Your task to perform on an android device: open device folders in google photos Image 0: 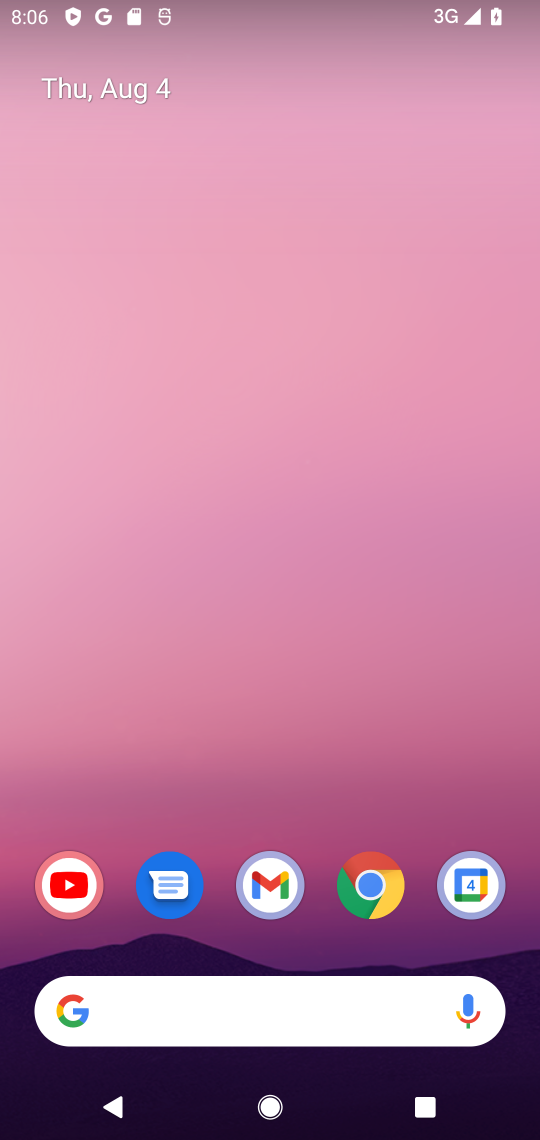
Step 0: press home button
Your task to perform on an android device: open device folders in google photos Image 1: 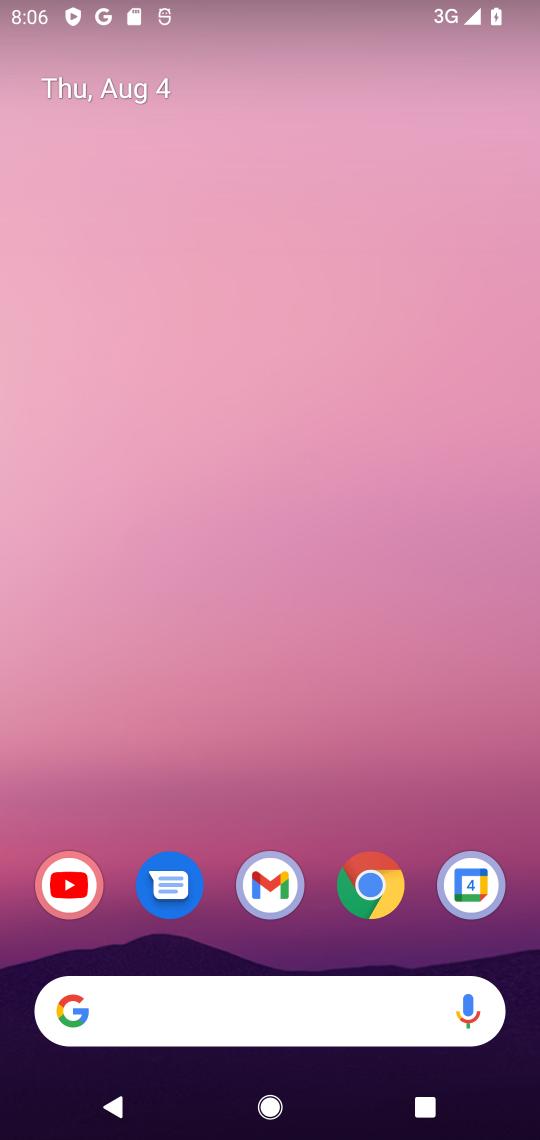
Step 1: drag from (313, 938) to (386, 122)
Your task to perform on an android device: open device folders in google photos Image 2: 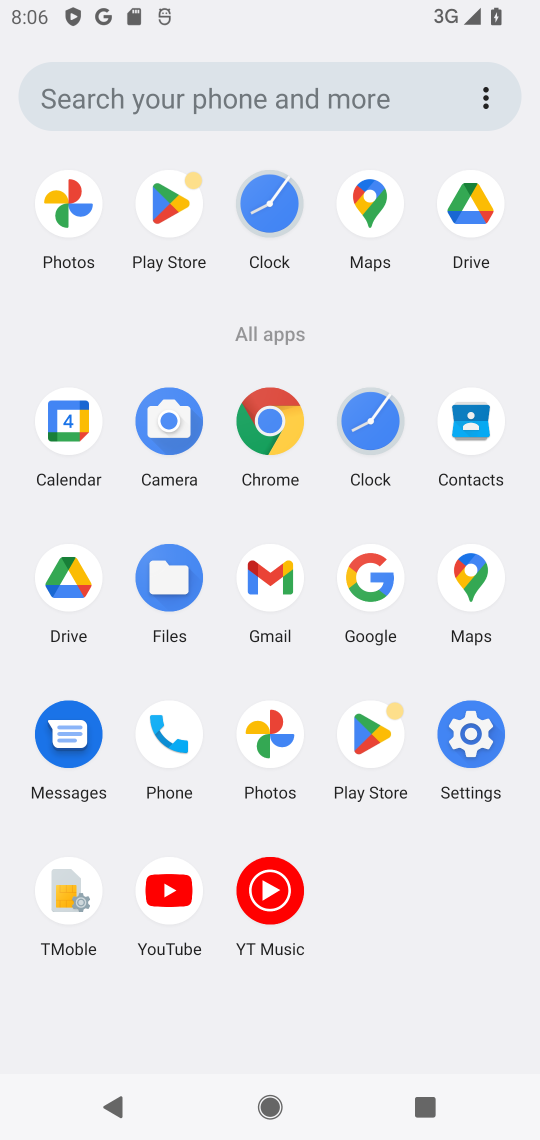
Step 2: click (273, 726)
Your task to perform on an android device: open device folders in google photos Image 3: 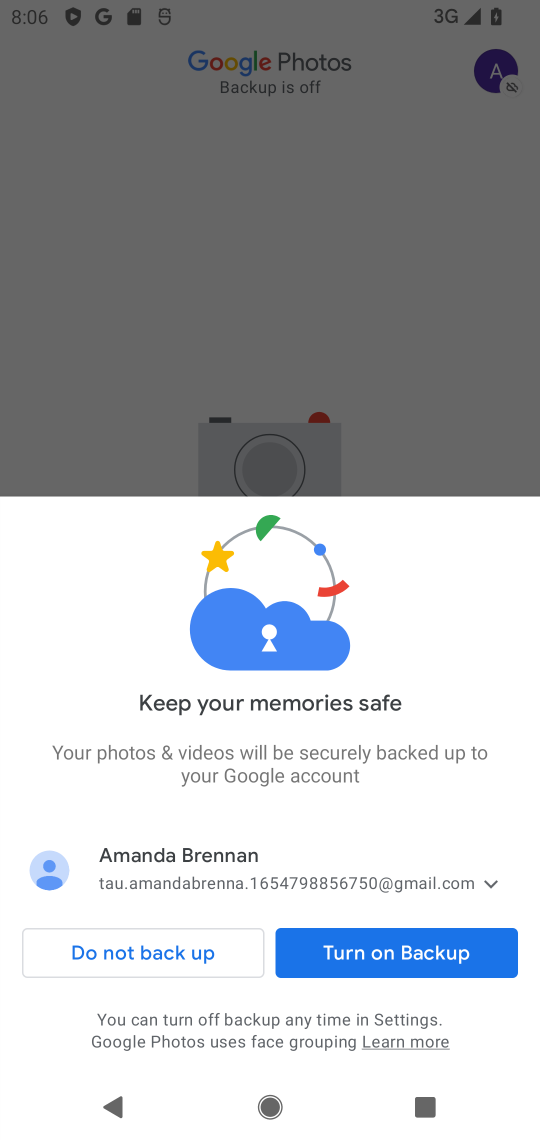
Step 3: click (406, 952)
Your task to perform on an android device: open device folders in google photos Image 4: 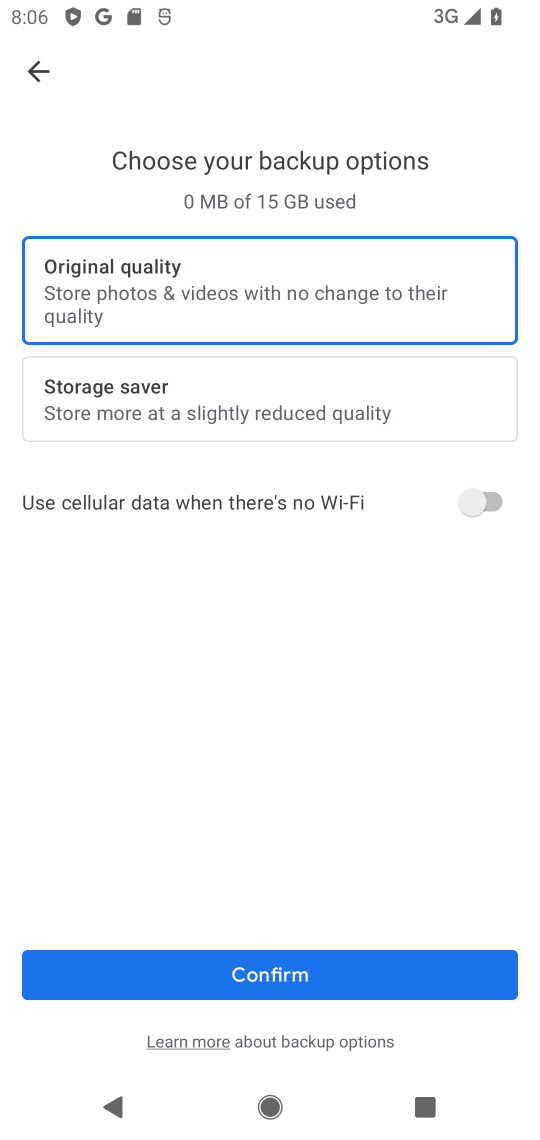
Step 4: click (256, 979)
Your task to perform on an android device: open device folders in google photos Image 5: 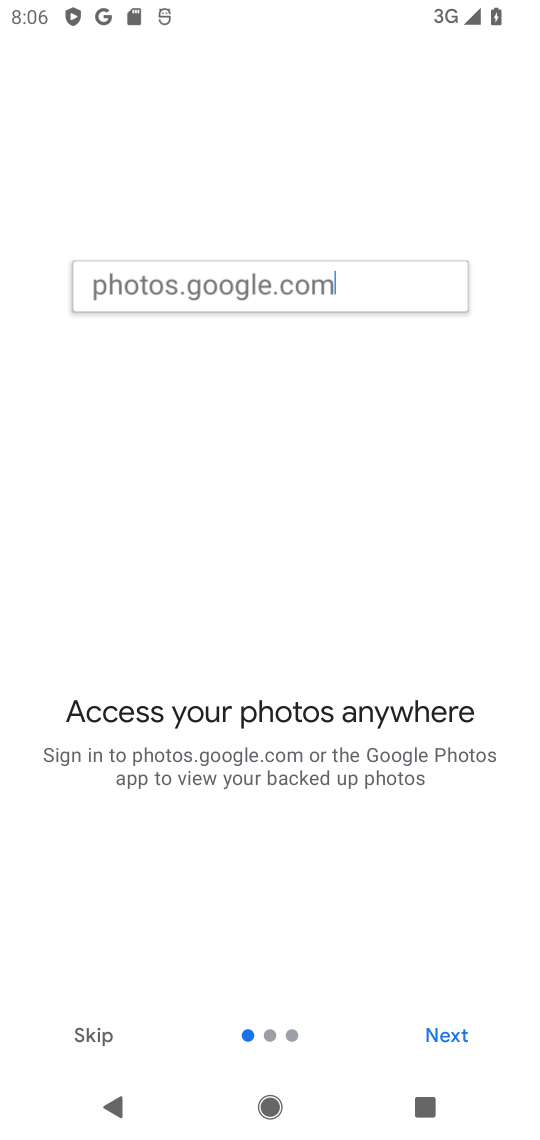
Step 5: click (79, 1026)
Your task to perform on an android device: open device folders in google photos Image 6: 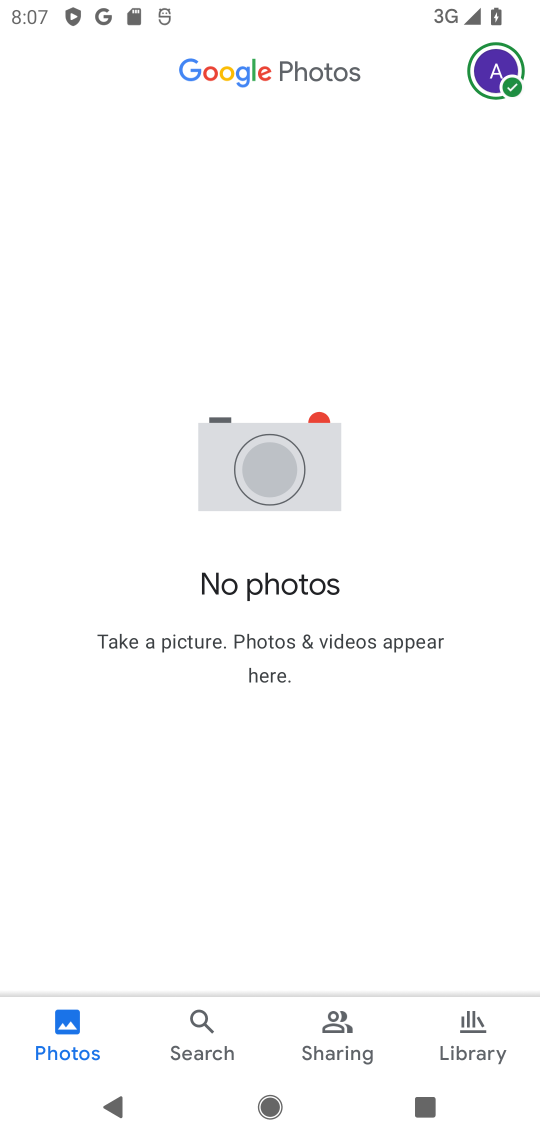
Step 6: click (198, 1046)
Your task to perform on an android device: open device folders in google photos Image 7: 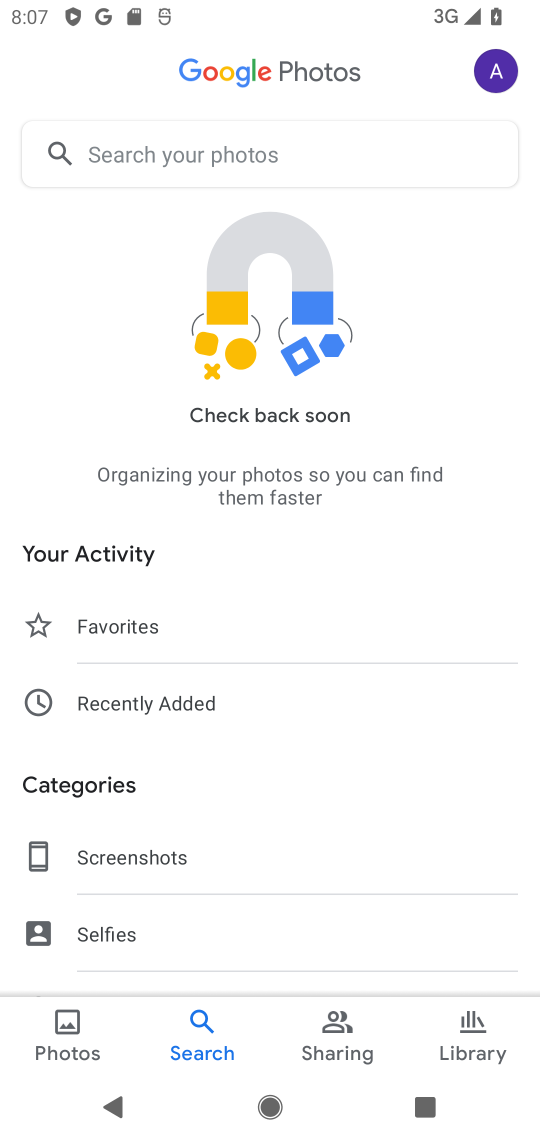
Step 7: click (124, 149)
Your task to perform on an android device: open device folders in google photos Image 8: 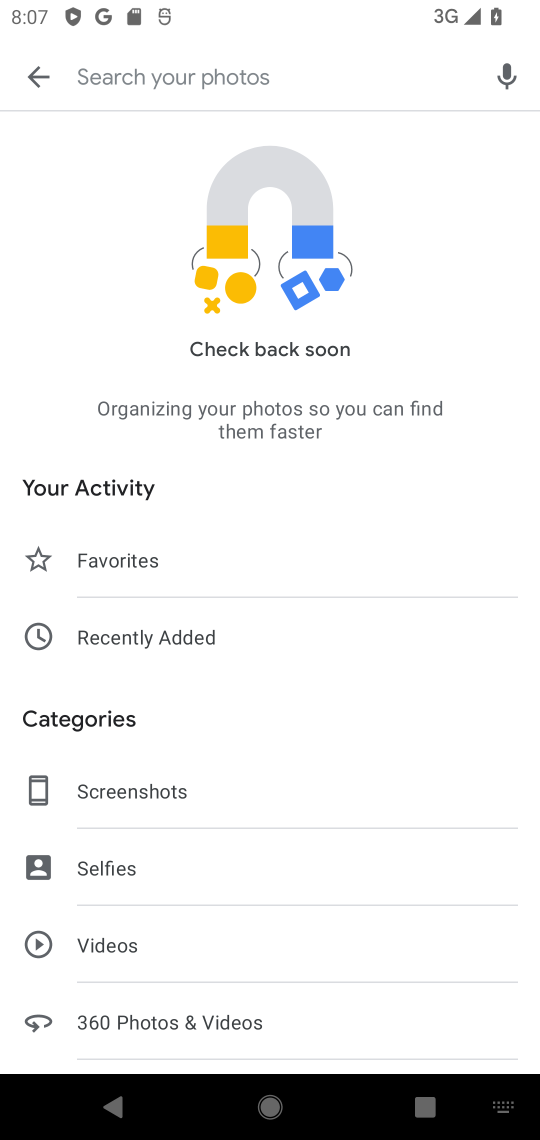
Step 8: type "device"
Your task to perform on an android device: open device folders in google photos Image 9: 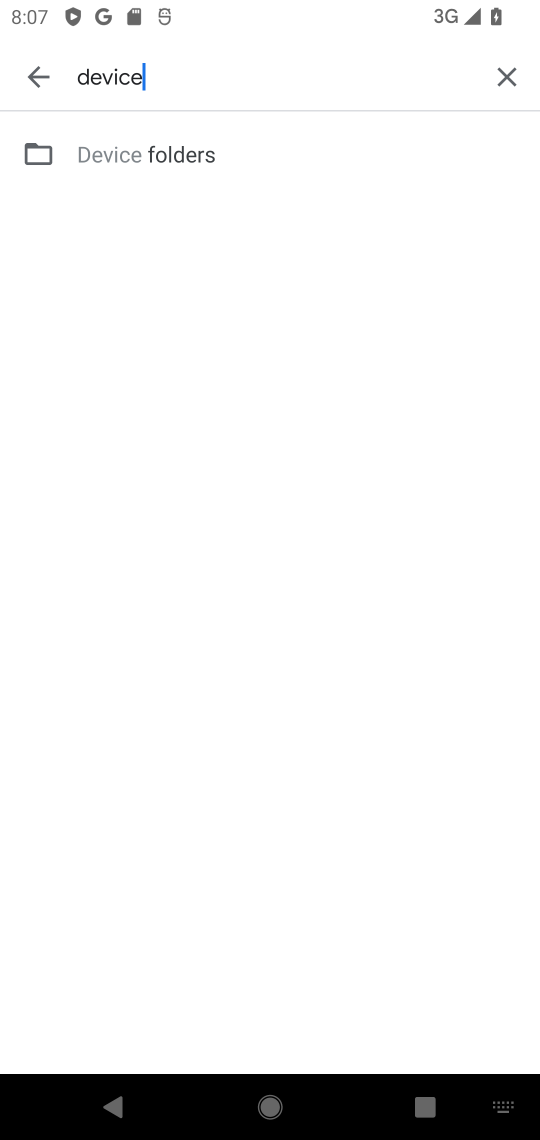
Step 9: click (142, 164)
Your task to perform on an android device: open device folders in google photos Image 10: 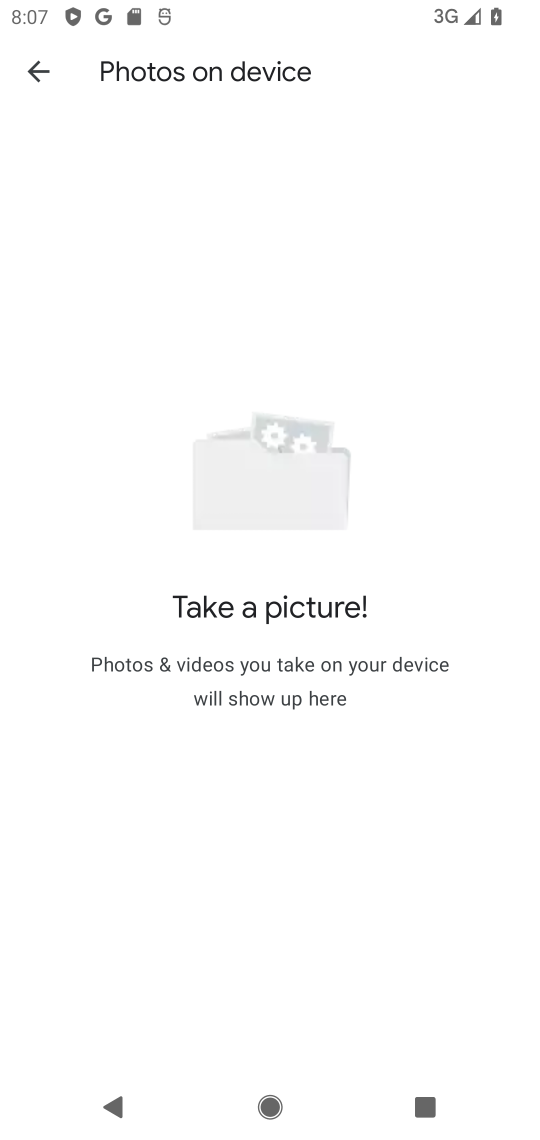
Step 10: task complete